Your task to perform on an android device: Open the Play Movies app and select the watchlist tab. Image 0: 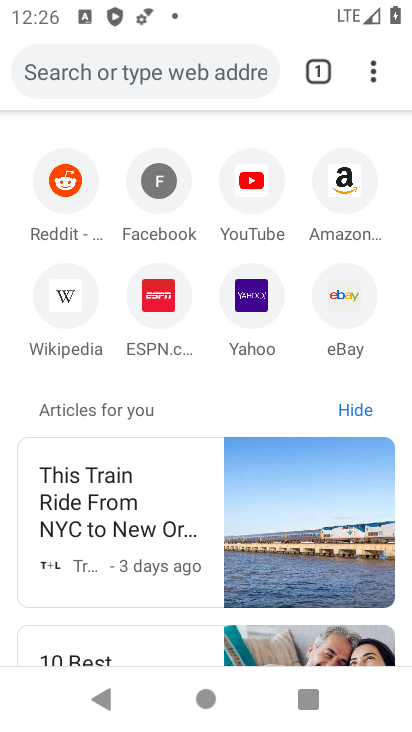
Step 0: press home button
Your task to perform on an android device: Open the Play Movies app and select the watchlist tab. Image 1: 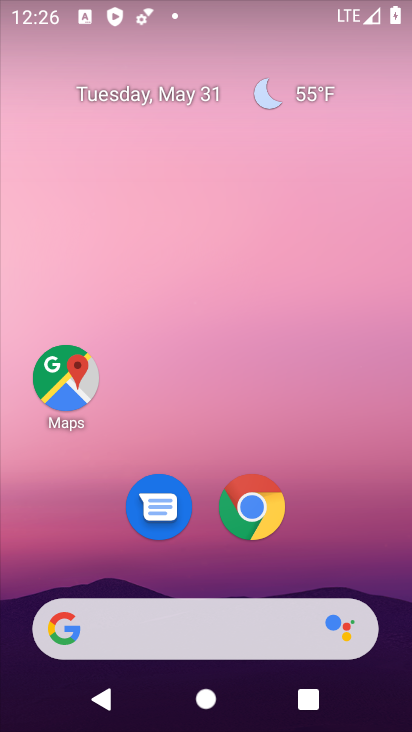
Step 1: drag from (392, 640) to (222, 97)
Your task to perform on an android device: Open the Play Movies app and select the watchlist tab. Image 2: 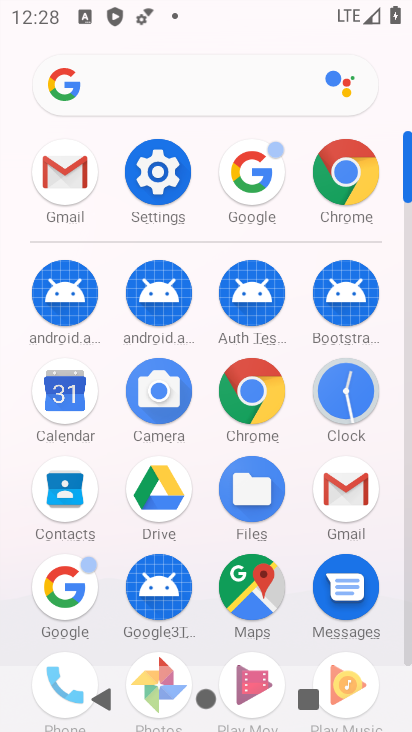
Step 2: drag from (300, 636) to (312, 72)
Your task to perform on an android device: Open the Play Movies app and select the watchlist tab. Image 3: 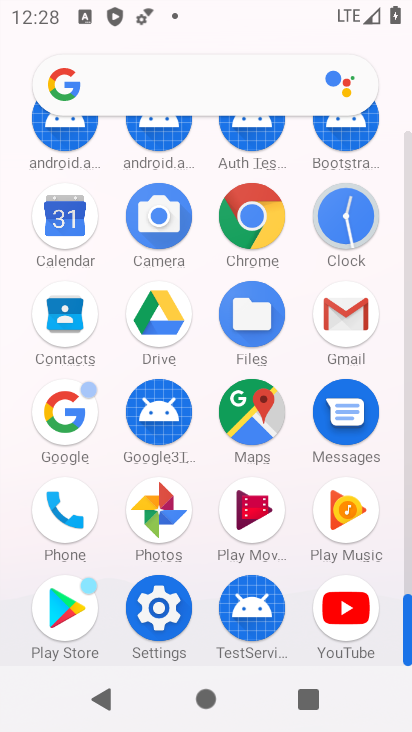
Step 3: click (243, 534)
Your task to perform on an android device: Open the Play Movies app and select the watchlist tab. Image 4: 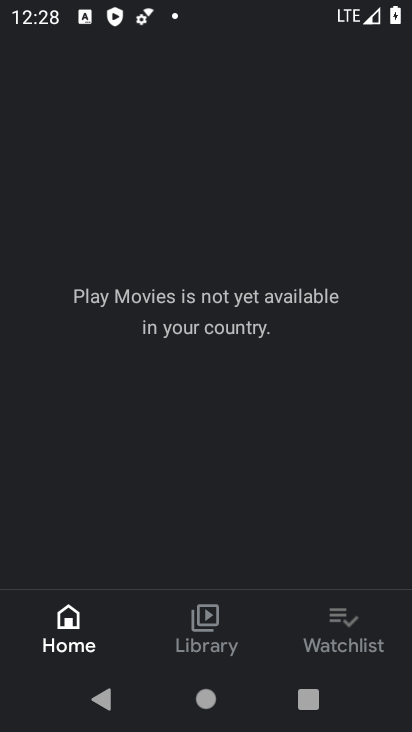
Step 4: click (321, 622)
Your task to perform on an android device: Open the Play Movies app and select the watchlist tab. Image 5: 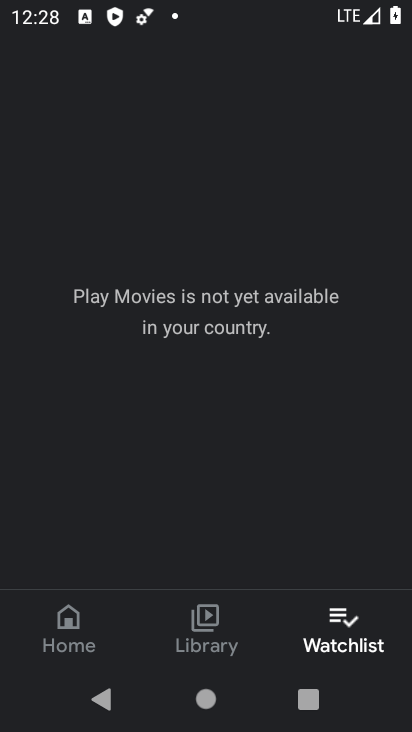
Step 5: task complete